Your task to perform on an android device: What's the weather today? Image 0: 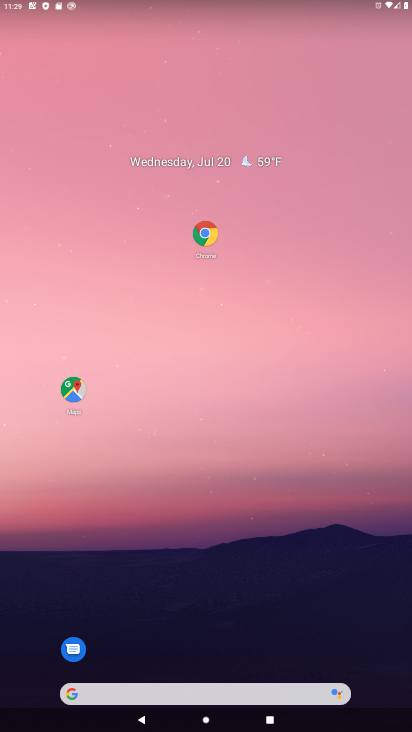
Step 0: drag from (204, 653) to (229, 68)
Your task to perform on an android device: What's the weather today? Image 1: 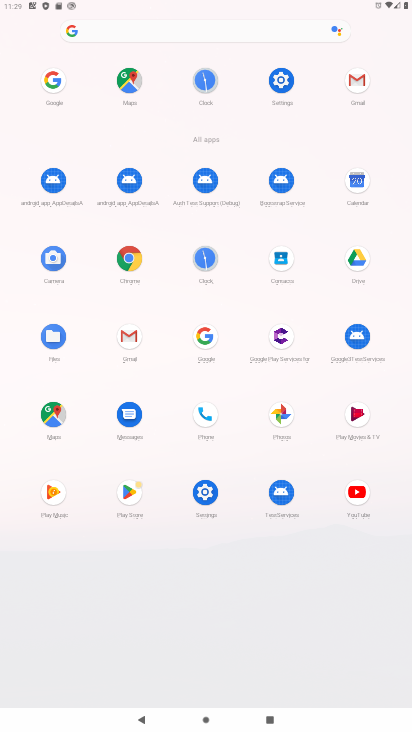
Step 1: click (204, 331)
Your task to perform on an android device: What's the weather today? Image 2: 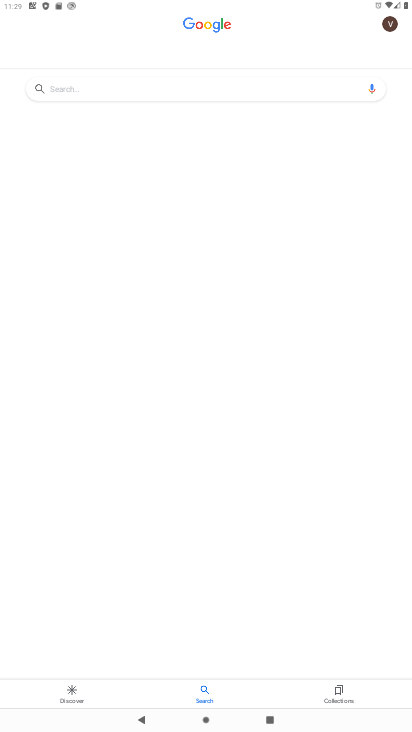
Step 2: click (154, 89)
Your task to perform on an android device: What's the weather today? Image 3: 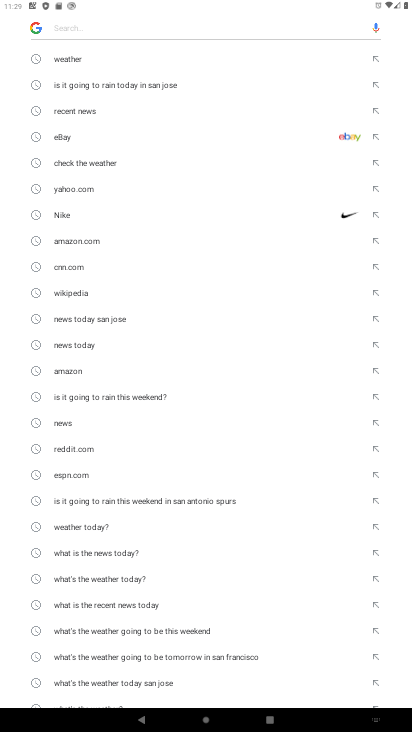
Step 3: click (92, 575)
Your task to perform on an android device: What's the weather today? Image 4: 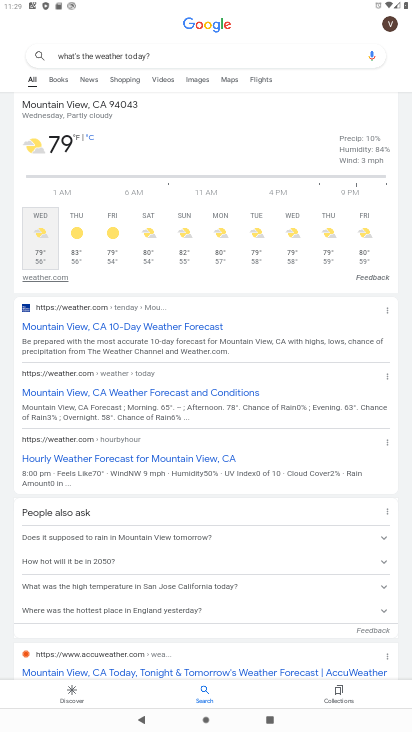
Step 4: task complete